Your task to perform on an android device: show emergency info Image 0: 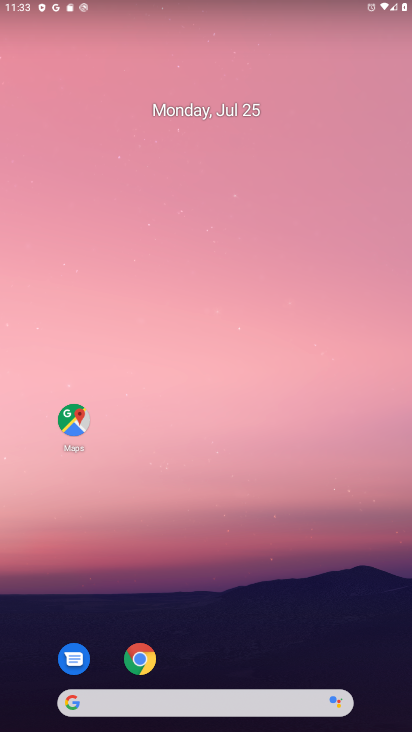
Step 0: drag from (278, 591) to (194, 150)
Your task to perform on an android device: show emergency info Image 1: 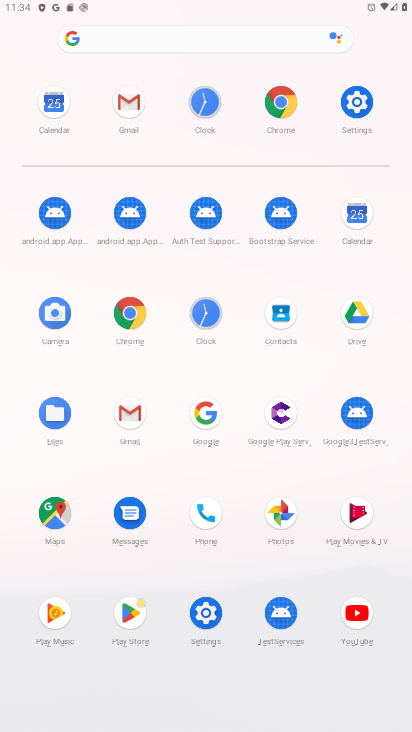
Step 1: click (357, 98)
Your task to perform on an android device: show emergency info Image 2: 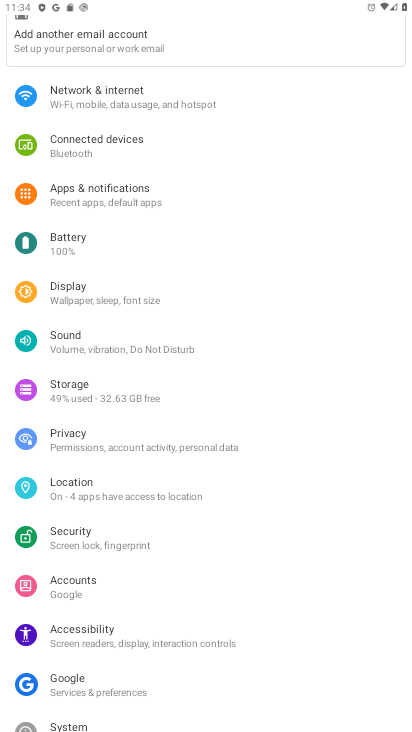
Step 2: drag from (260, 635) to (243, 335)
Your task to perform on an android device: show emergency info Image 3: 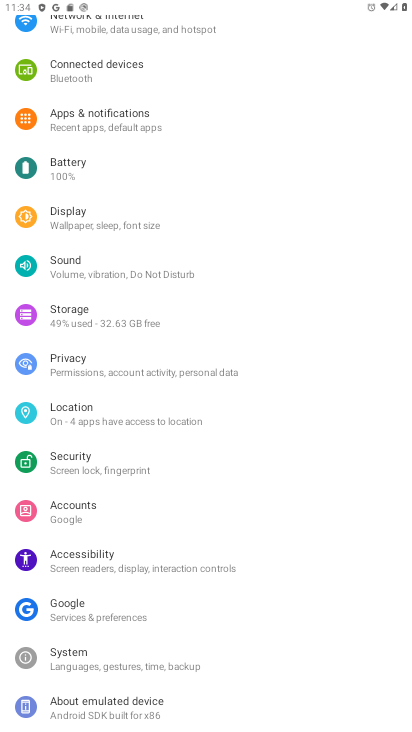
Step 3: click (110, 702)
Your task to perform on an android device: show emergency info Image 4: 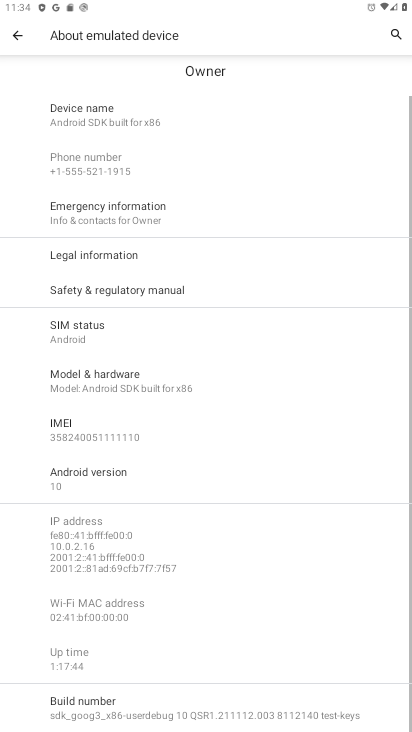
Step 4: task complete